Your task to perform on an android device: Show me recent news Image 0: 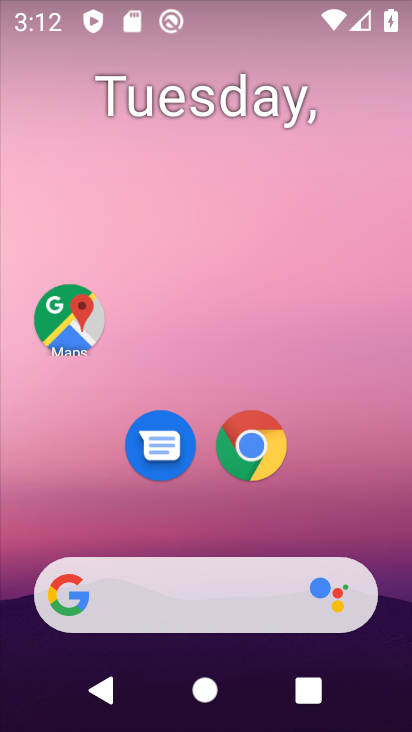
Step 0: drag from (62, 491) to (361, 513)
Your task to perform on an android device: Show me recent news Image 1: 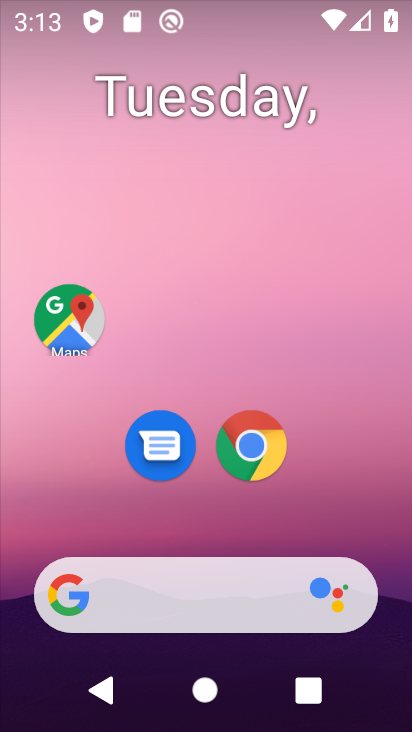
Step 1: click (266, 473)
Your task to perform on an android device: Show me recent news Image 2: 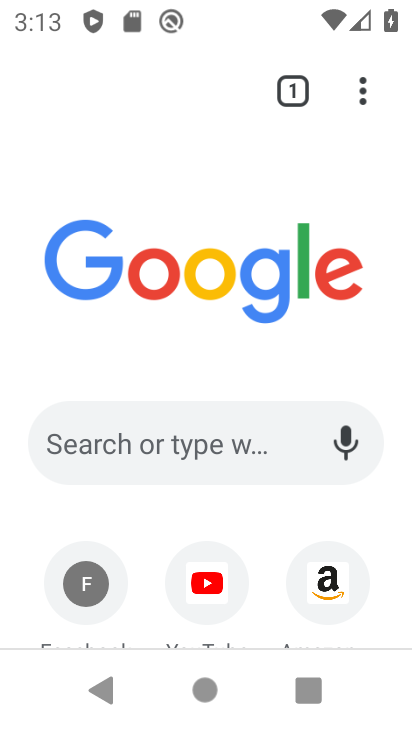
Step 2: click (232, 442)
Your task to perform on an android device: Show me recent news Image 3: 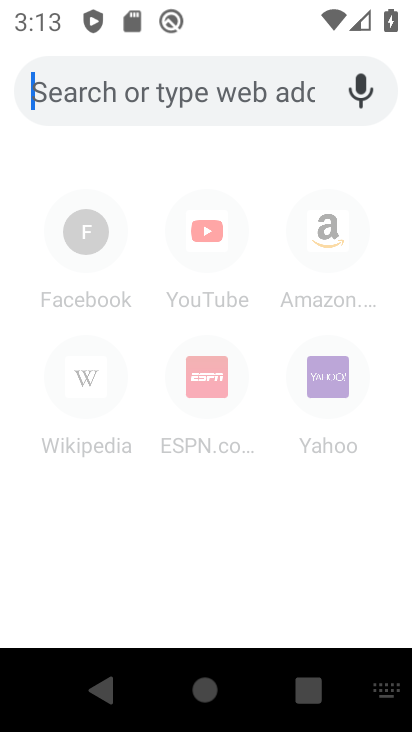
Step 3: type "show me recent news"
Your task to perform on an android device: Show me recent news Image 4: 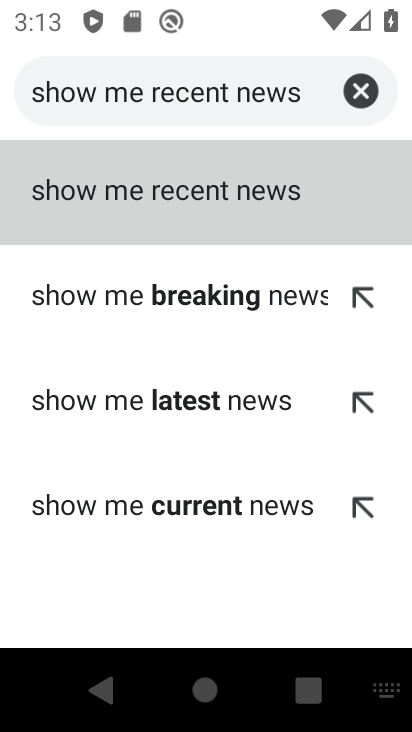
Step 4: click (172, 194)
Your task to perform on an android device: Show me recent news Image 5: 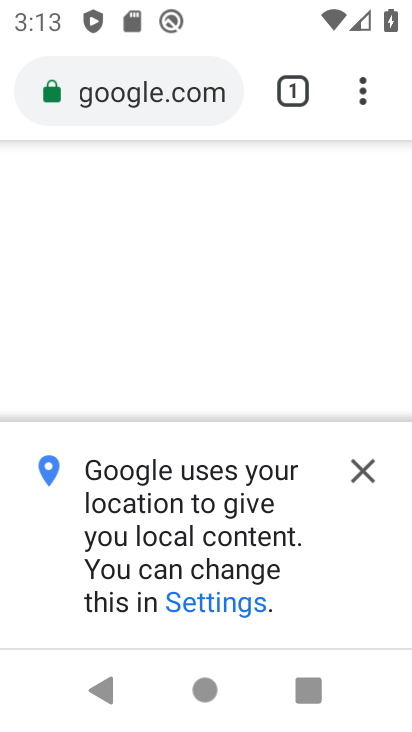
Step 5: click (364, 475)
Your task to perform on an android device: Show me recent news Image 6: 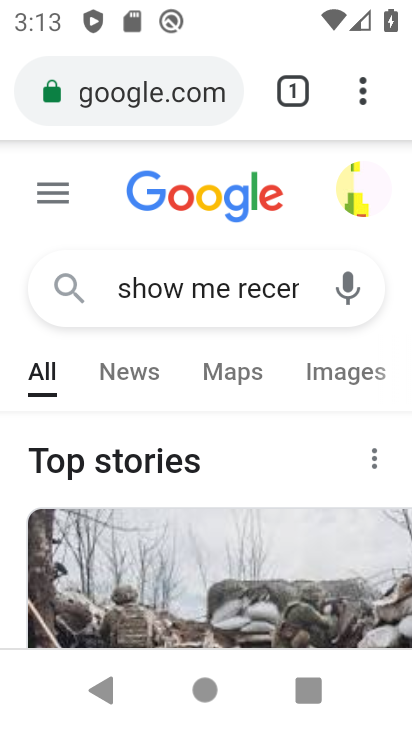
Step 6: task complete